Your task to perform on an android device: change notification settings in the gmail app Image 0: 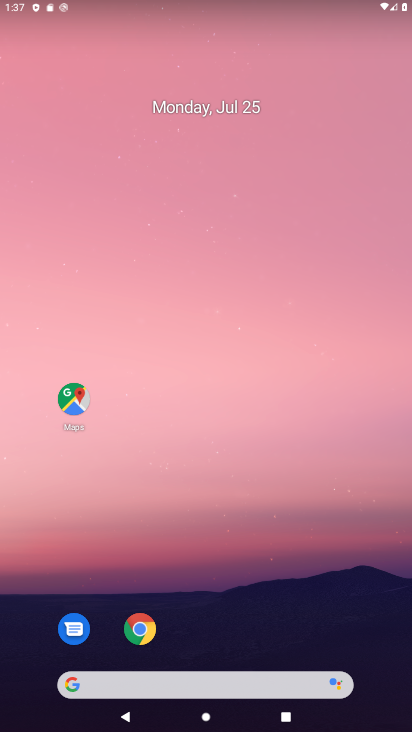
Step 0: drag from (178, 642) to (248, 146)
Your task to perform on an android device: change notification settings in the gmail app Image 1: 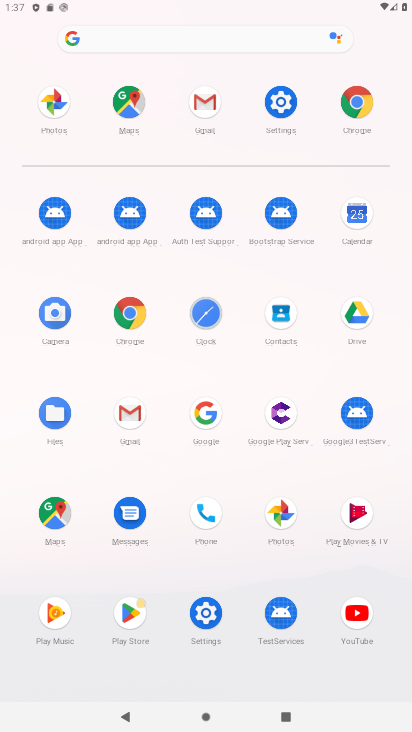
Step 1: click (122, 422)
Your task to perform on an android device: change notification settings in the gmail app Image 2: 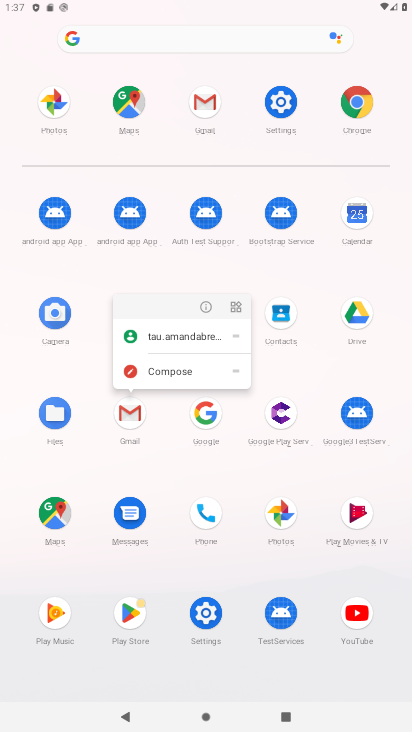
Step 2: click (205, 302)
Your task to perform on an android device: change notification settings in the gmail app Image 3: 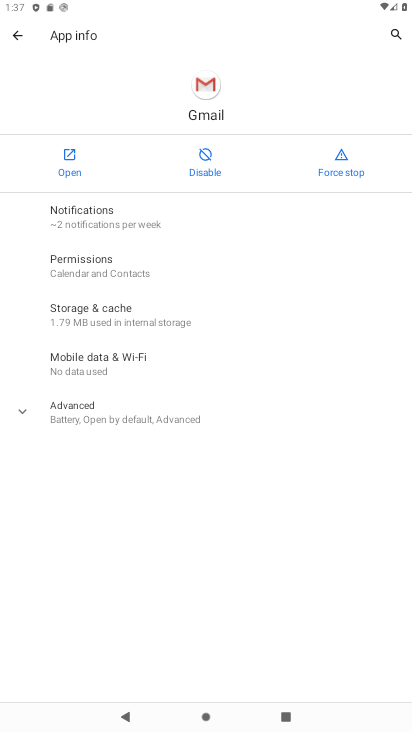
Step 3: click (70, 171)
Your task to perform on an android device: change notification settings in the gmail app Image 4: 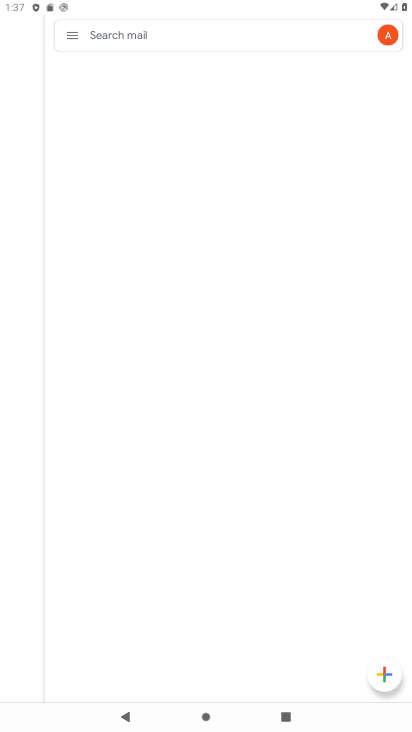
Step 4: drag from (223, 574) to (214, 135)
Your task to perform on an android device: change notification settings in the gmail app Image 5: 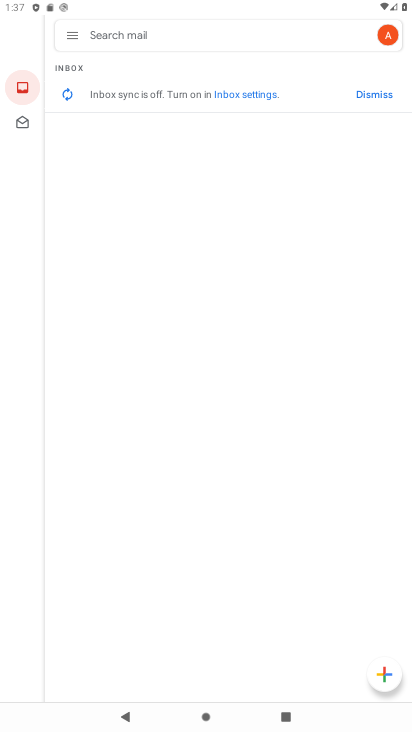
Step 5: click (73, 35)
Your task to perform on an android device: change notification settings in the gmail app Image 6: 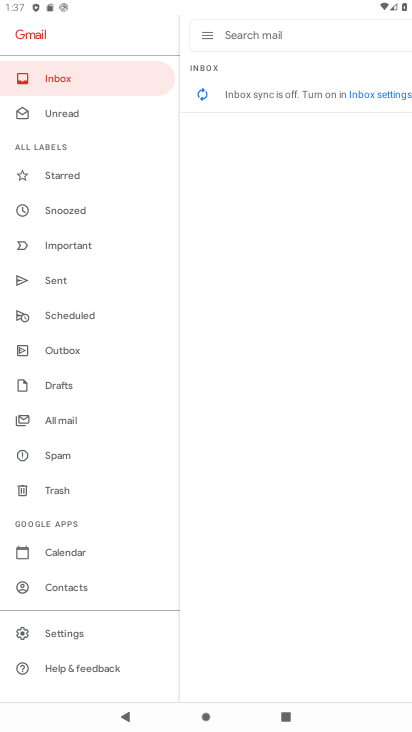
Step 6: click (79, 633)
Your task to perform on an android device: change notification settings in the gmail app Image 7: 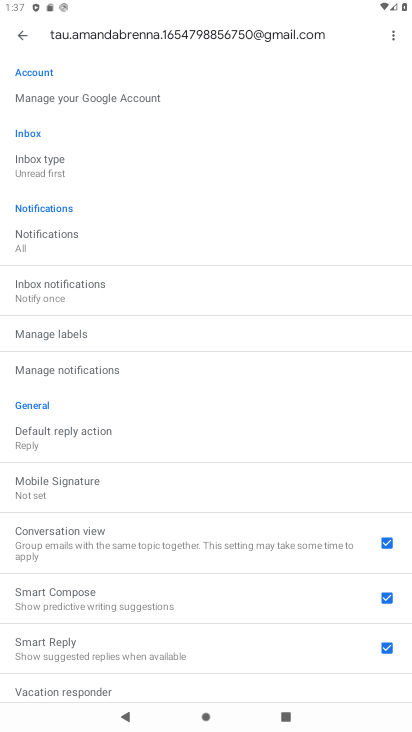
Step 7: drag from (105, 391) to (170, 246)
Your task to perform on an android device: change notification settings in the gmail app Image 8: 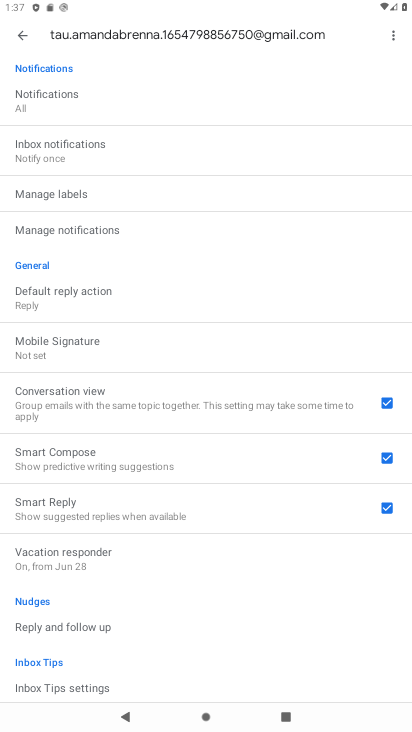
Step 8: click (87, 230)
Your task to perform on an android device: change notification settings in the gmail app Image 9: 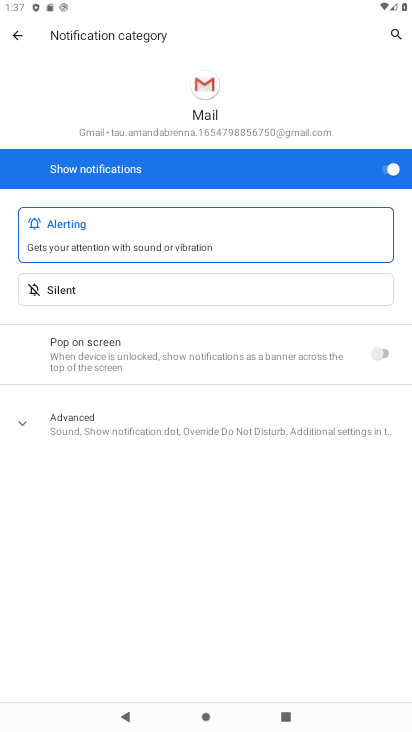
Step 9: drag from (193, 550) to (230, 288)
Your task to perform on an android device: change notification settings in the gmail app Image 10: 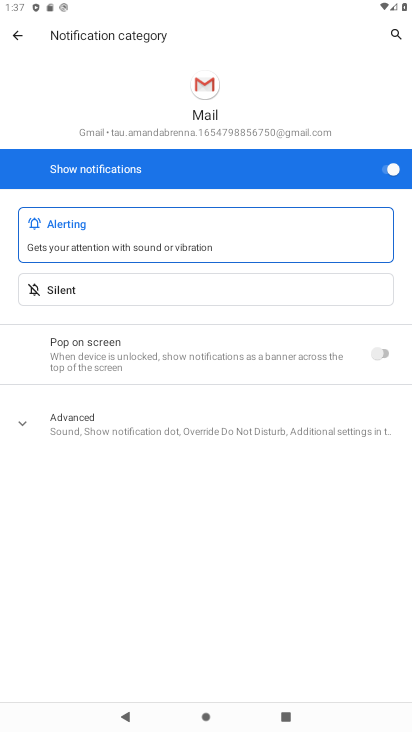
Step 10: drag from (226, 513) to (251, 385)
Your task to perform on an android device: change notification settings in the gmail app Image 11: 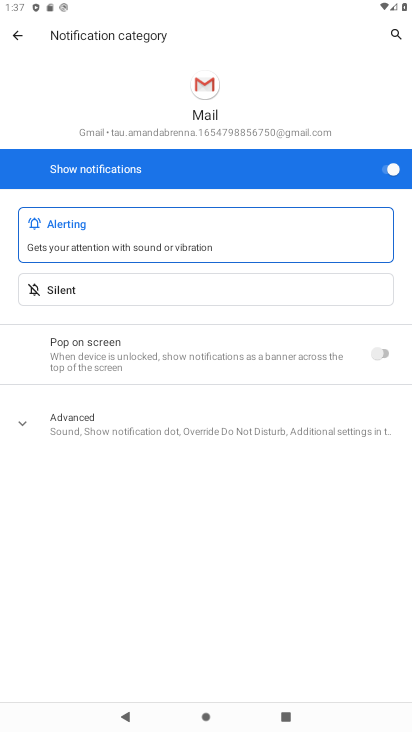
Step 11: drag from (209, 547) to (261, 272)
Your task to perform on an android device: change notification settings in the gmail app Image 12: 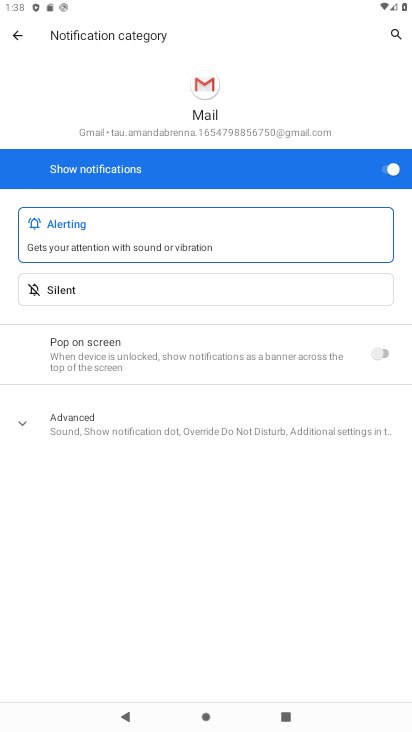
Step 12: click (385, 168)
Your task to perform on an android device: change notification settings in the gmail app Image 13: 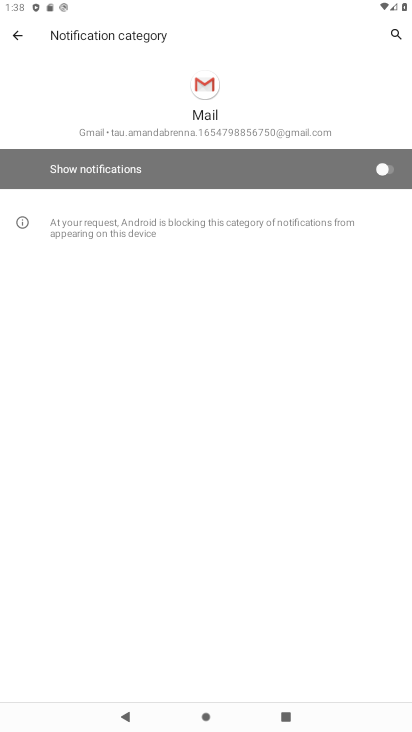
Step 13: task complete